Your task to perform on an android device: refresh tabs in the chrome app Image 0: 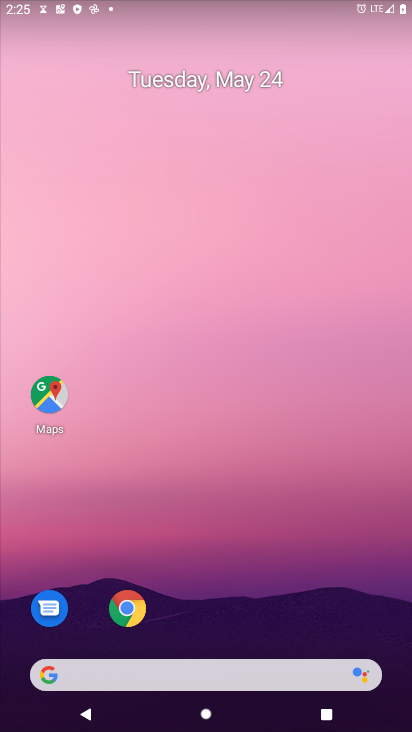
Step 0: click (218, 142)
Your task to perform on an android device: refresh tabs in the chrome app Image 1: 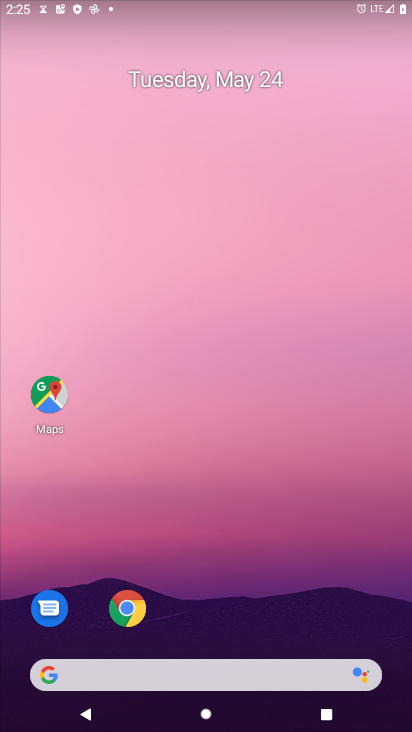
Step 1: drag from (188, 703) to (235, 142)
Your task to perform on an android device: refresh tabs in the chrome app Image 2: 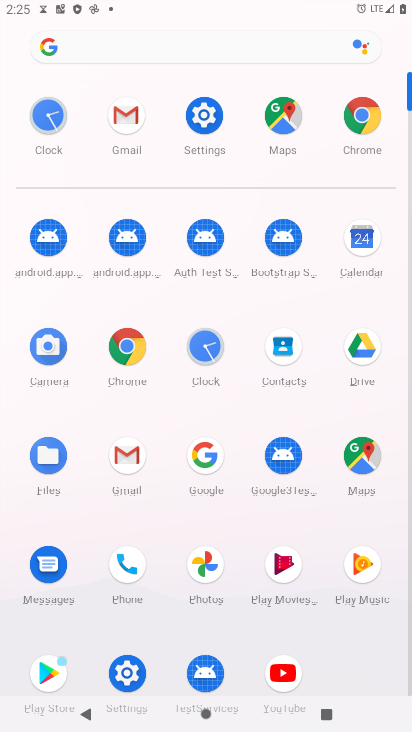
Step 2: click (375, 117)
Your task to perform on an android device: refresh tabs in the chrome app Image 3: 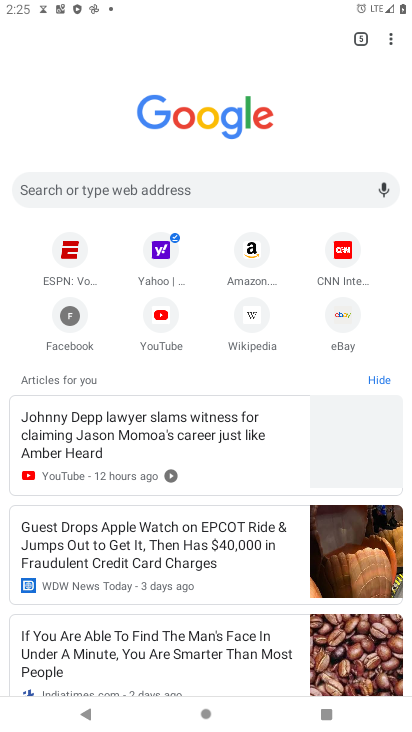
Step 3: click (387, 40)
Your task to perform on an android device: refresh tabs in the chrome app Image 4: 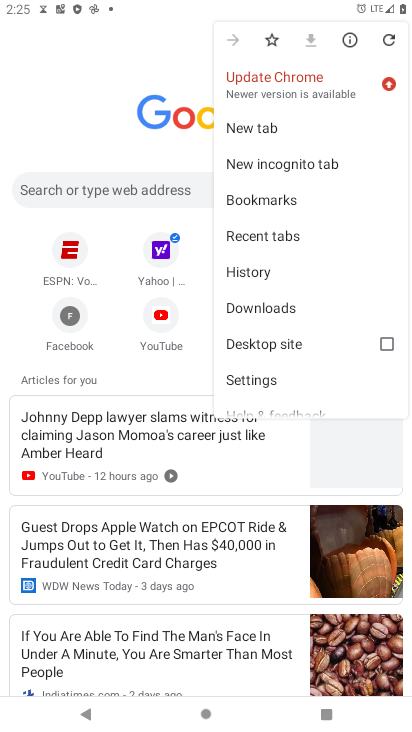
Step 4: click (391, 38)
Your task to perform on an android device: refresh tabs in the chrome app Image 5: 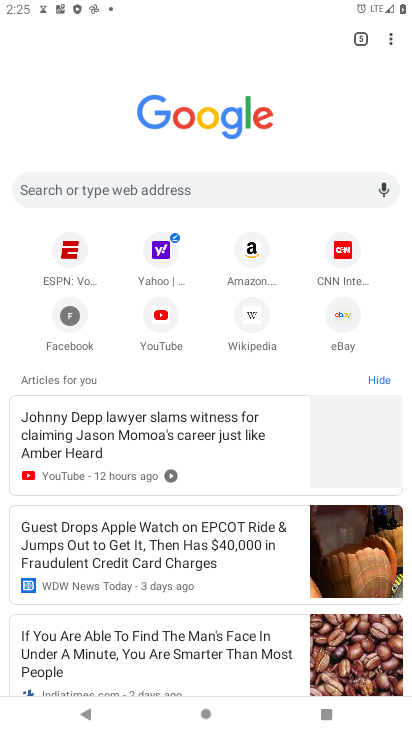
Step 5: task complete